Your task to perform on an android device: Open display settings Image 0: 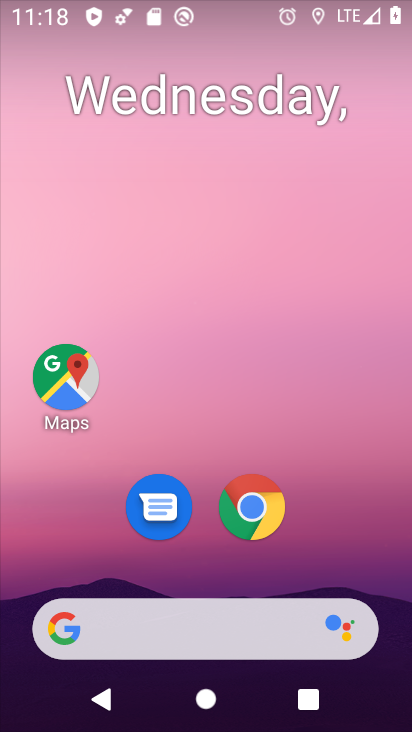
Step 0: drag from (359, 536) to (367, 95)
Your task to perform on an android device: Open display settings Image 1: 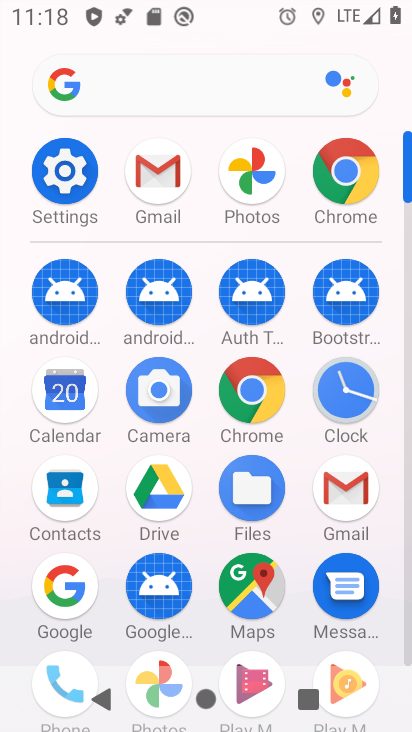
Step 1: click (62, 172)
Your task to perform on an android device: Open display settings Image 2: 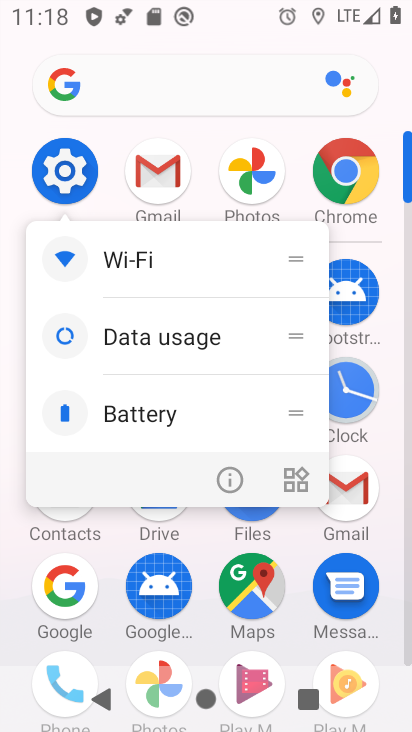
Step 2: click (64, 173)
Your task to perform on an android device: Open display settings Image 3: 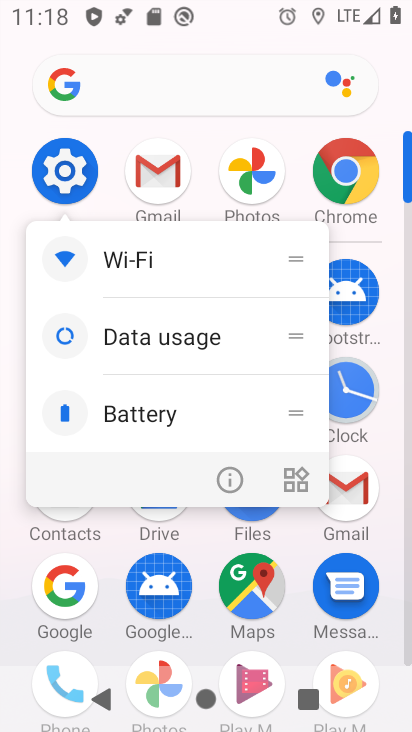
Step 3: click (53, 179)
Your task to perform on an android device: Open display settings Image 4: 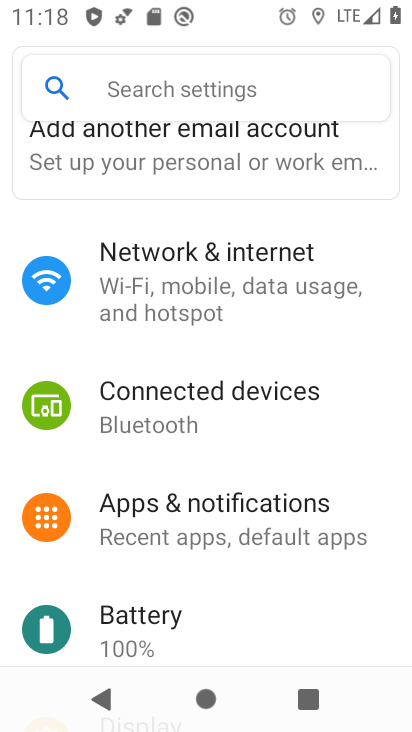
Step 4: drag from (372, 599) to (375, 429)
Your task to perform on an android device: Open display settings Image 5: 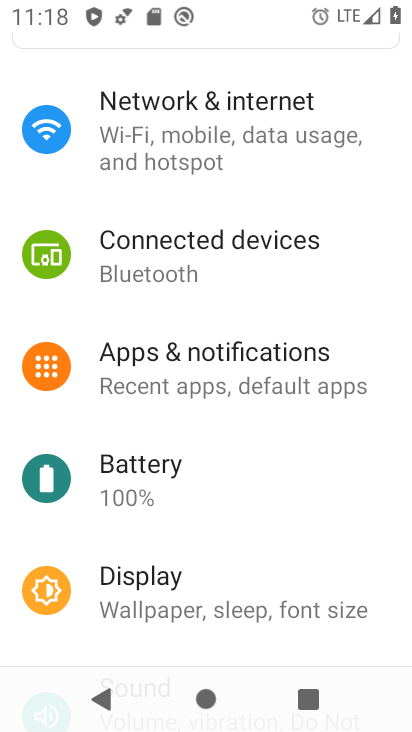
Step 5: drag from (366, 502) to (376, 322)
Your task to perform on an android device: Open display settings Image 6: 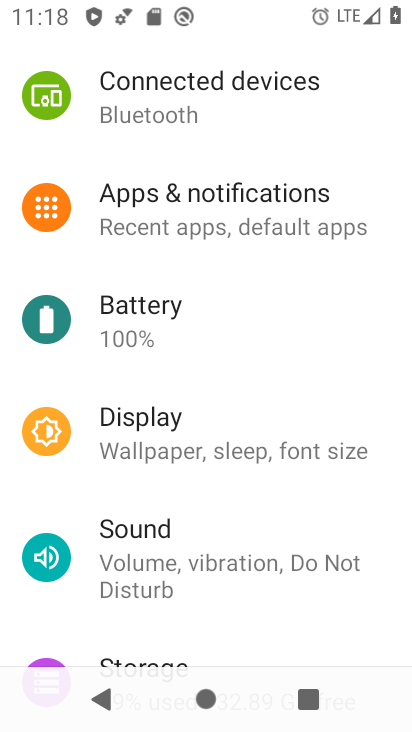
Step 6: drag from (376, 599) to (379, 385)
Your task to perform on an android device: Open display settings Image 7: 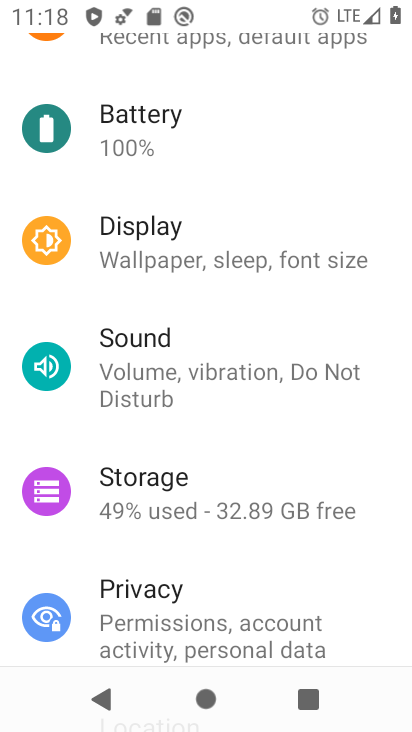
Step 7: click (155, 249)
Your task to perform on an android device: Open display settings Image 8: 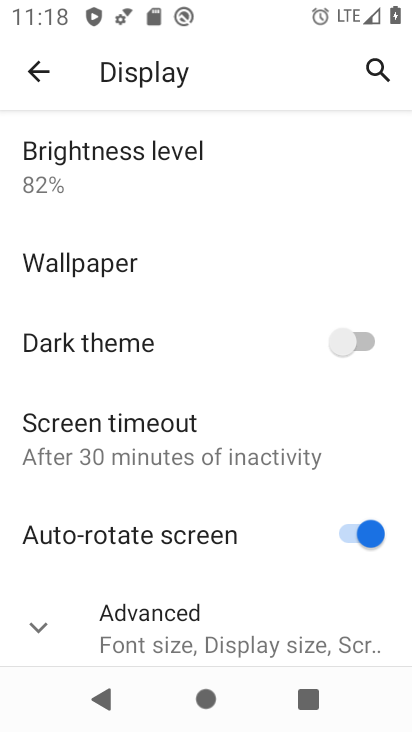
Step 8: click (146, 616)
Your task to perform on an android device: Open display settings Image 9: 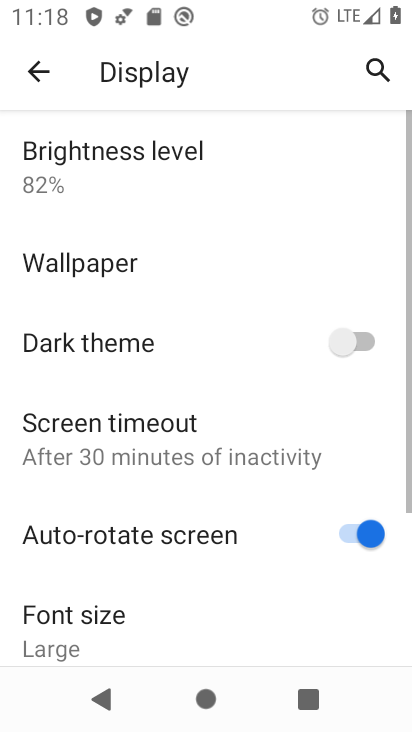
Step 9: task complete